Your task to perform on an android device: Open Reddit.com Image 0: 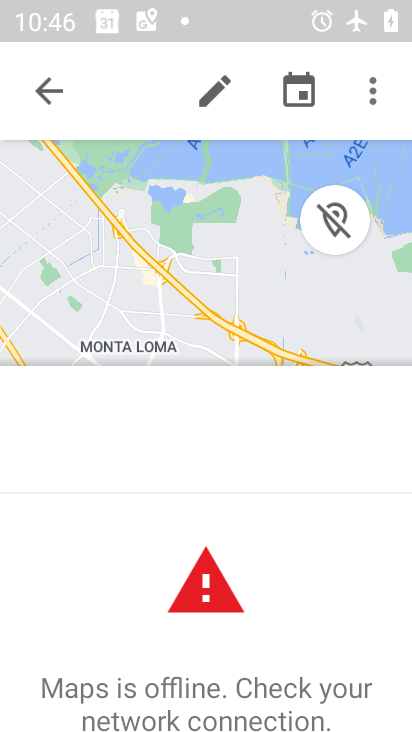
Step 0: press home button
Your task to perform on an android device: Open Reddit.com Image 1: 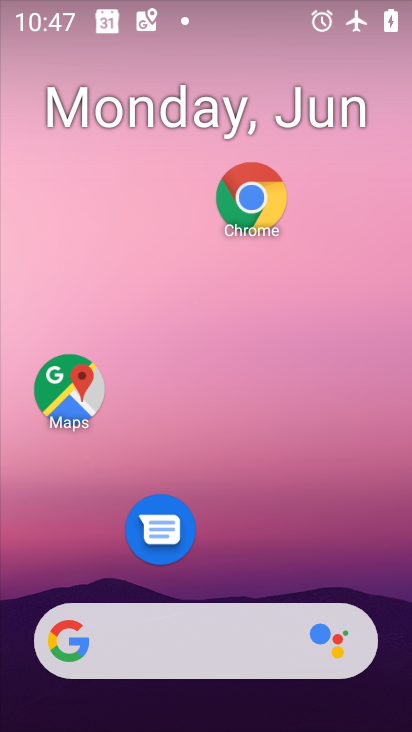
Step 1: click (252, 209)
Your task to perform on an android device: Open Reddit.com Image 2: 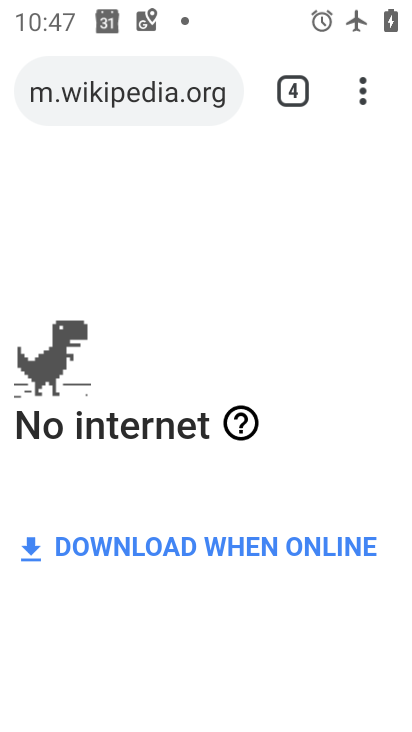
Step 2: click (297, 90)
Your task to perform on an android device: Open Reddit.com Image 3: 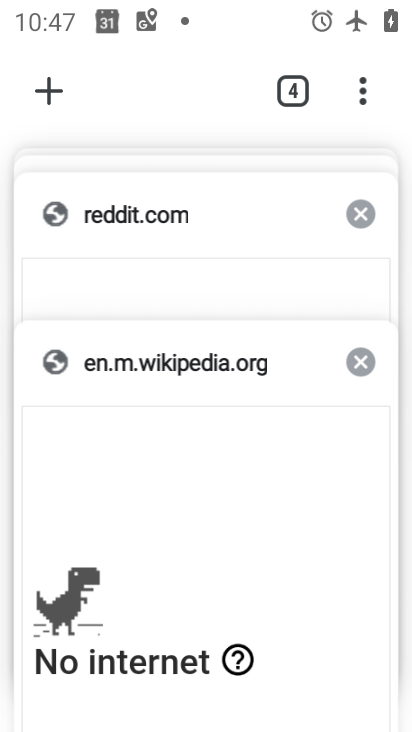
Step 3: click (131, 202)
Your task to perform on an android device: Open Reddit.com Image 4: 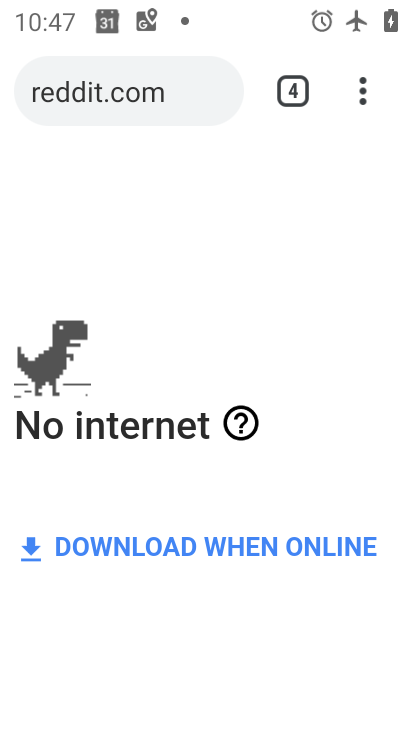
Step 4: task complete